Your task to perform on an android device: Search for razer naga on ebay.com, select the first entry, and add it to the cart. Image 0: 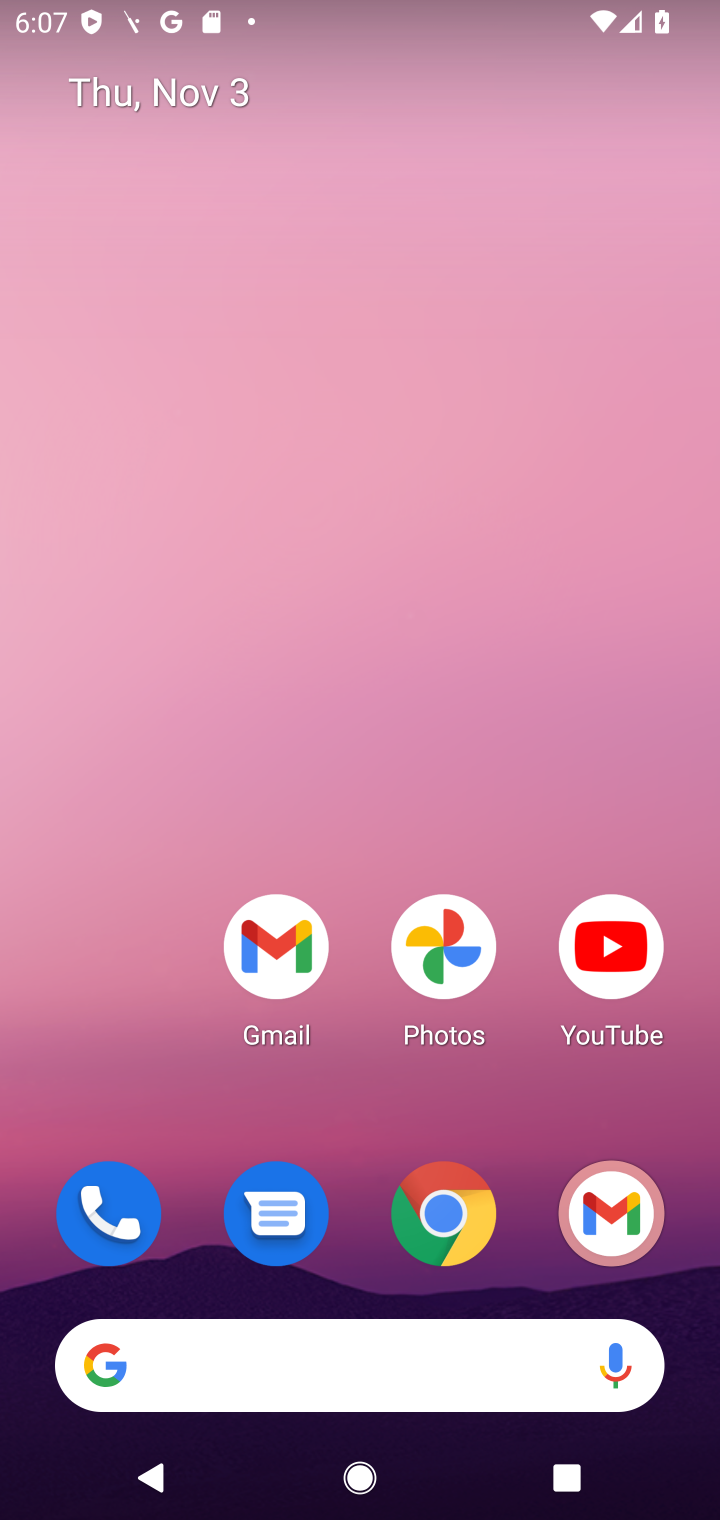
Step 0: click (431, 1228)
Your task to perform on an android device: Search for razer naga on ebay.com, select the first entry, and add it to the cart. Image 1: 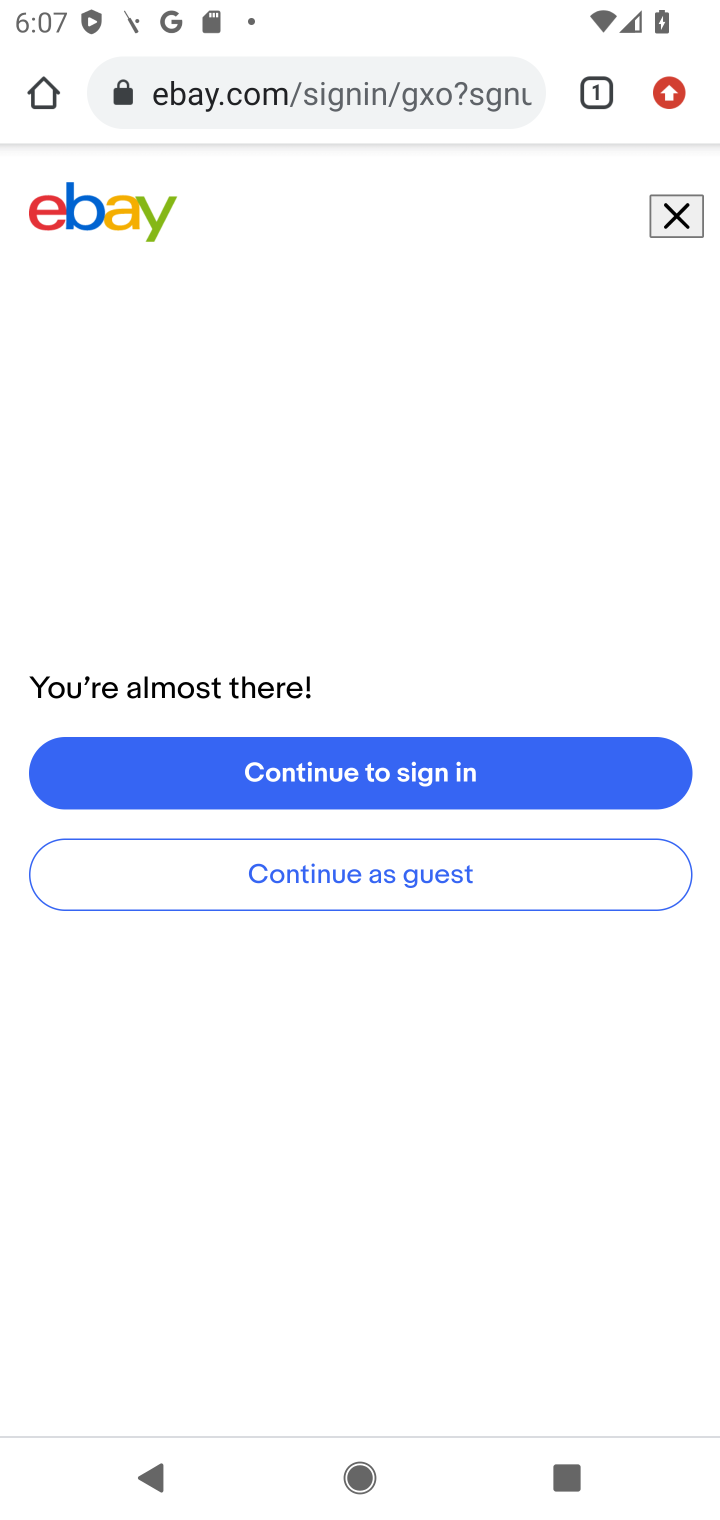
Step 1: click (670, 227)
Your task to perform on an android device: Search for razer naga on ebay.com, select the first entry, and add it to the cart. Image 2: 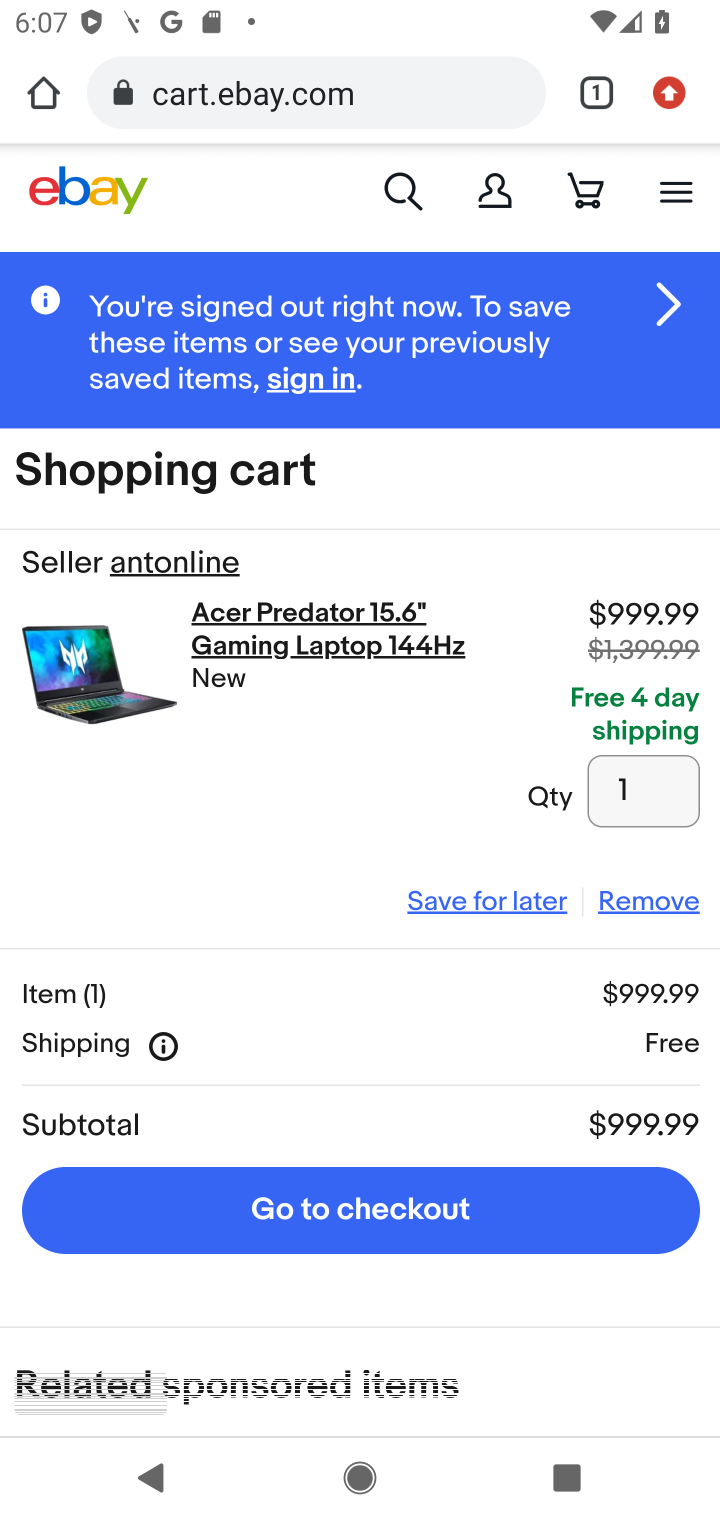
Step 2: click (390, 199)
Your task to perform on an android device: Search for razer naga on ebay.com, select the first entry, and add it to the cart. Image 3: 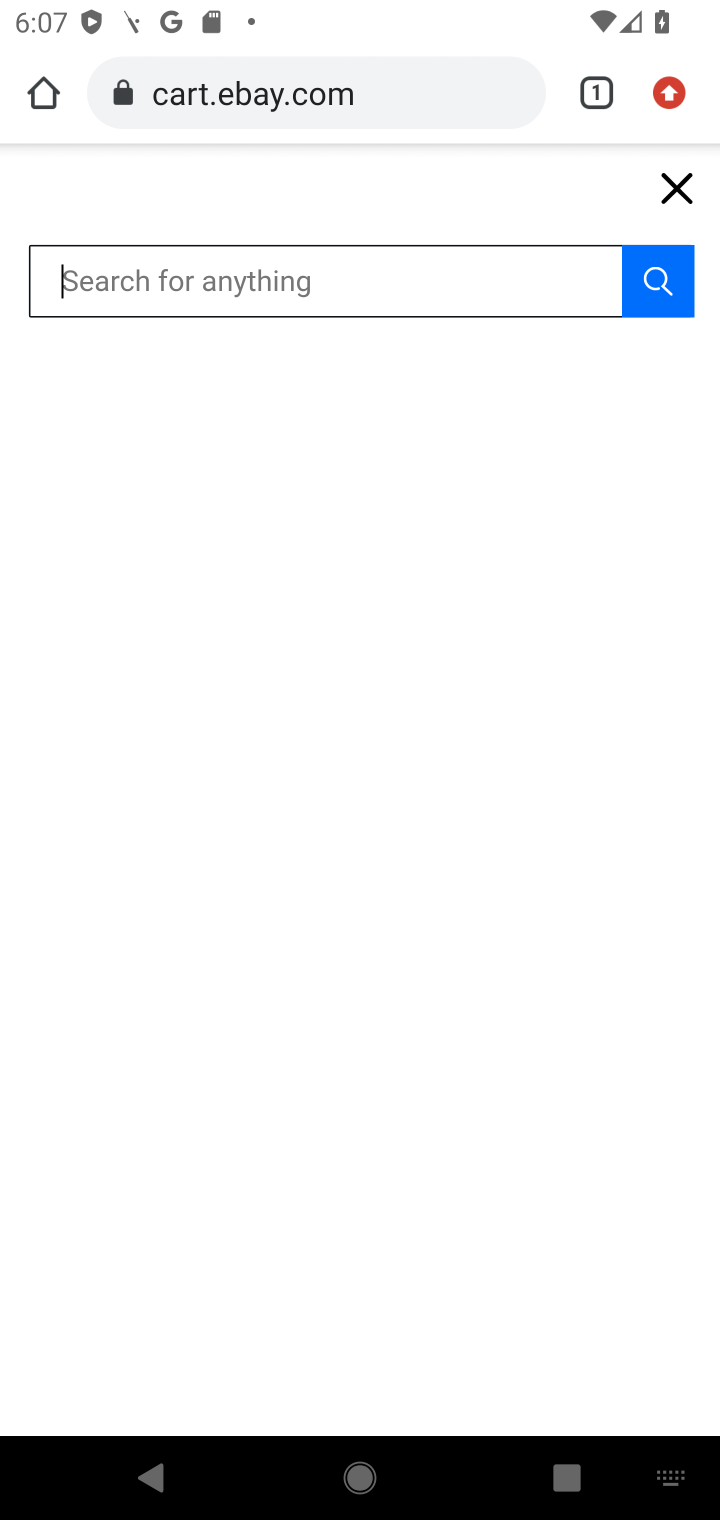
Step 3: type "razer naga"
Your task to perform on an android device: Search for razer naga on ebay.com, select the first entry, and add it to the cart. Image 4: 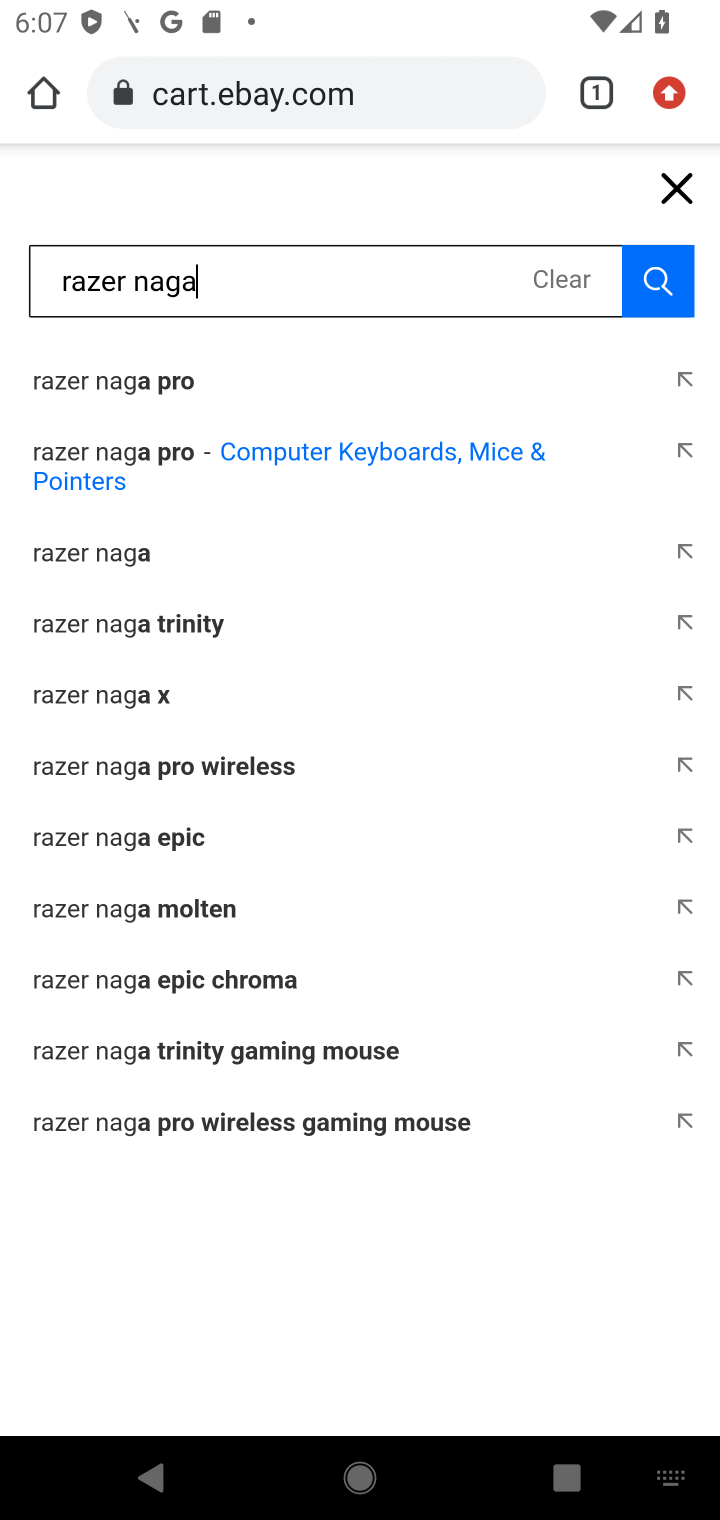
Step 4: click (134, 557)
Your task to perform on an android device: Search for razer naga on ebay.com, select the first entry, and add it to the cart. Image 5: 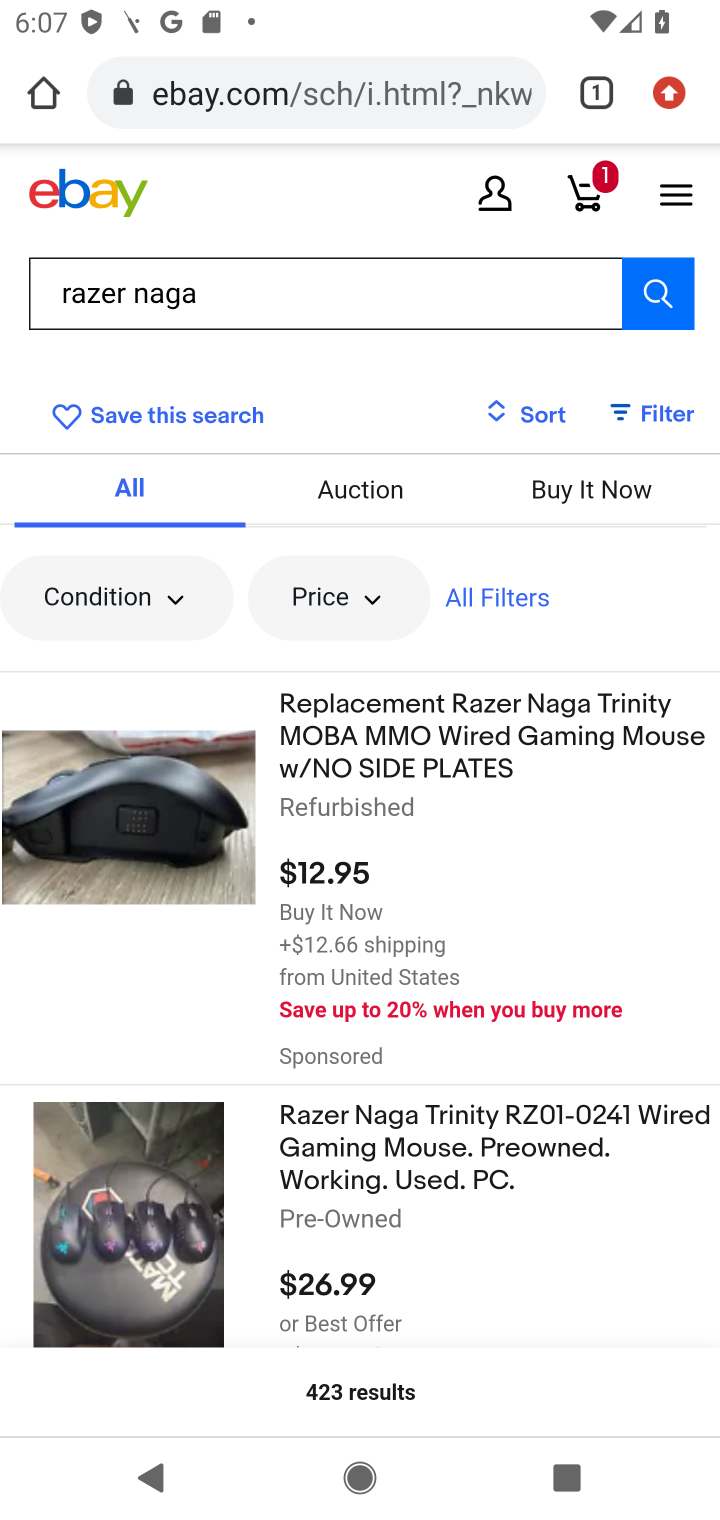
Step 5: click (275, 812)
Your task to perform on an android device: Search for razer naga on ebay.com, select the first entry, and add it to the cart. Image 6: 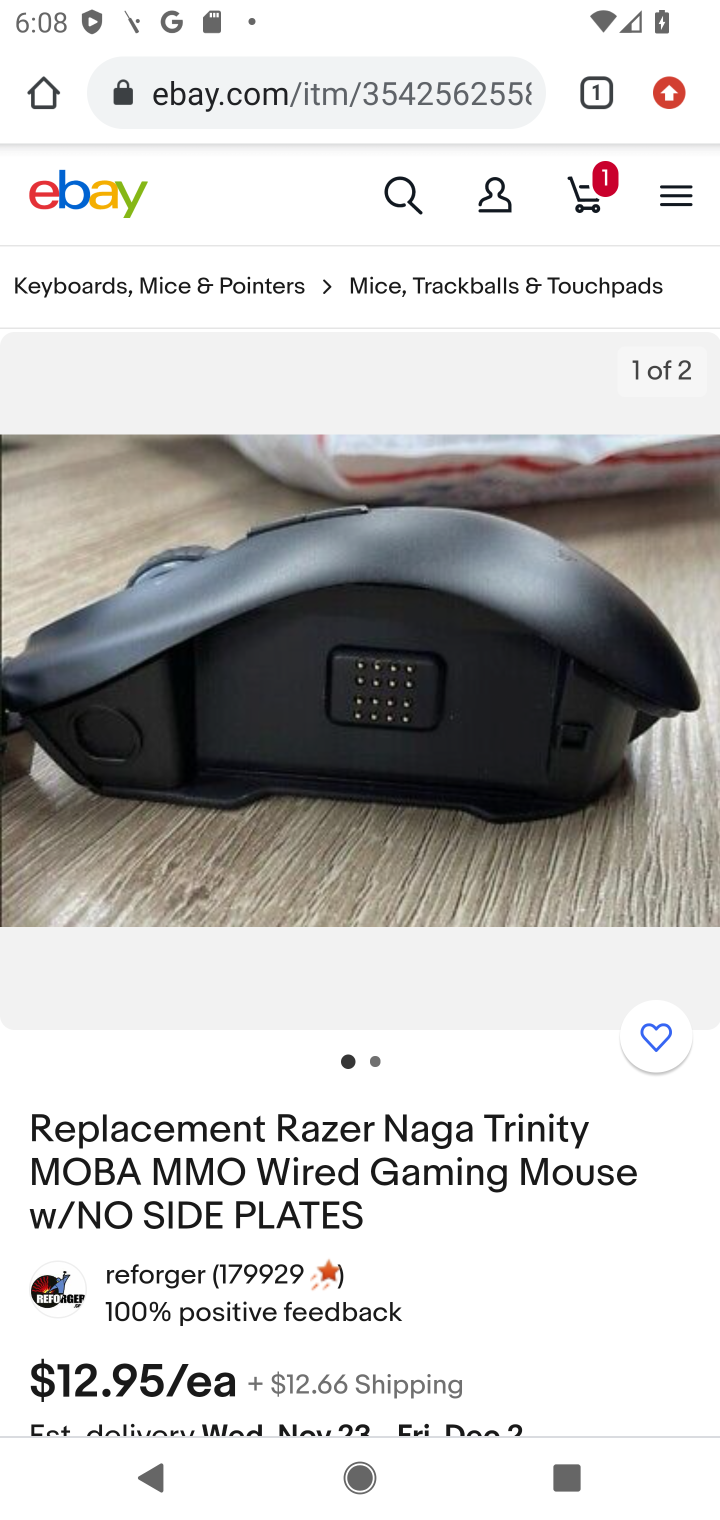
Step 6: drag from (409, 1311) to (440, 840)
Your task to perform on an android device: Search for razer naga on ebay.com, select the first entry, and add it to the cart. Image 7: 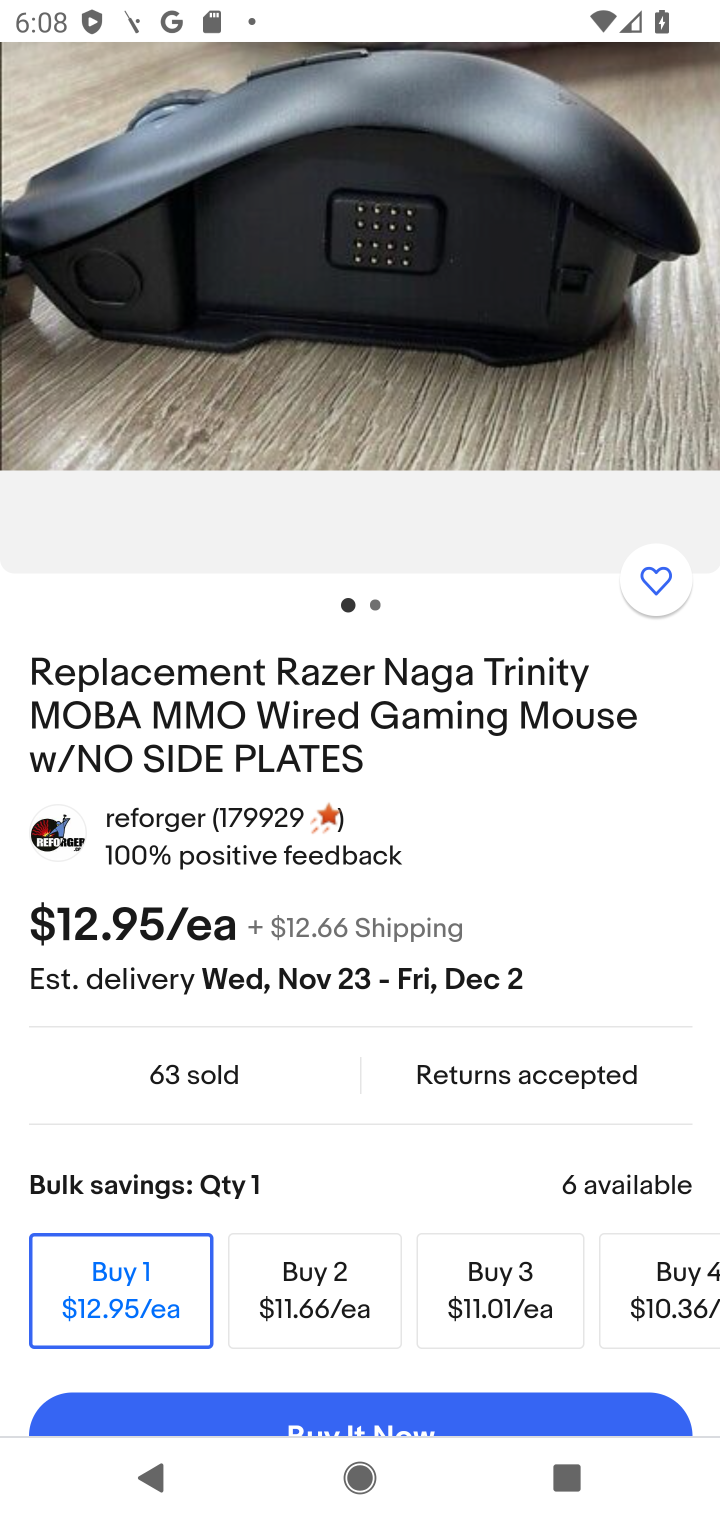
Step 7: drag from (339, 1253) to (383, 861)
Your task to perform on an android device: Search for razer naga on ebay.com, select the first entry, and add it to the cart. Image 8: 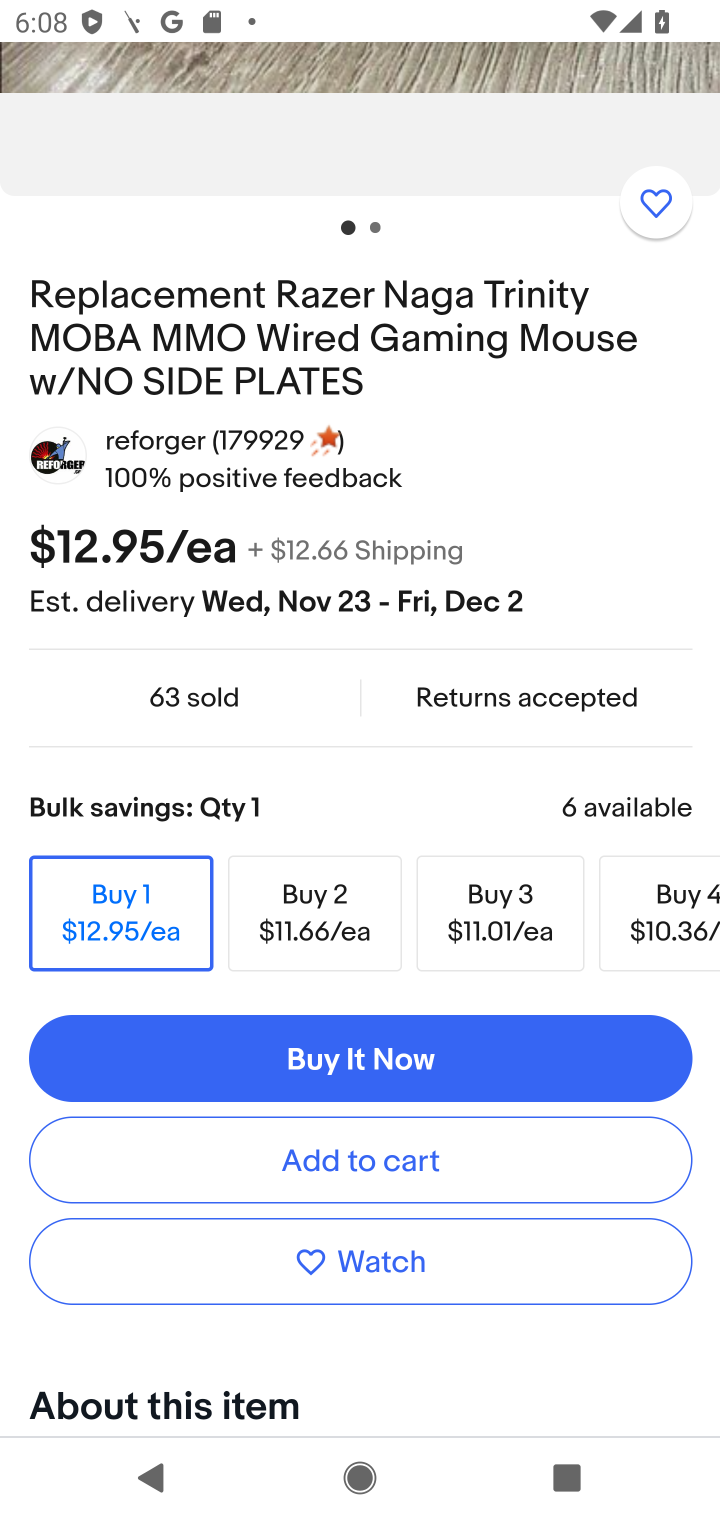
Step 8: drag from (429, 725) to (376, 1288)
Your task to perform on an android device: Search for razer naga on ebay.com, select the first entry, and add it to the cart. Image 9: 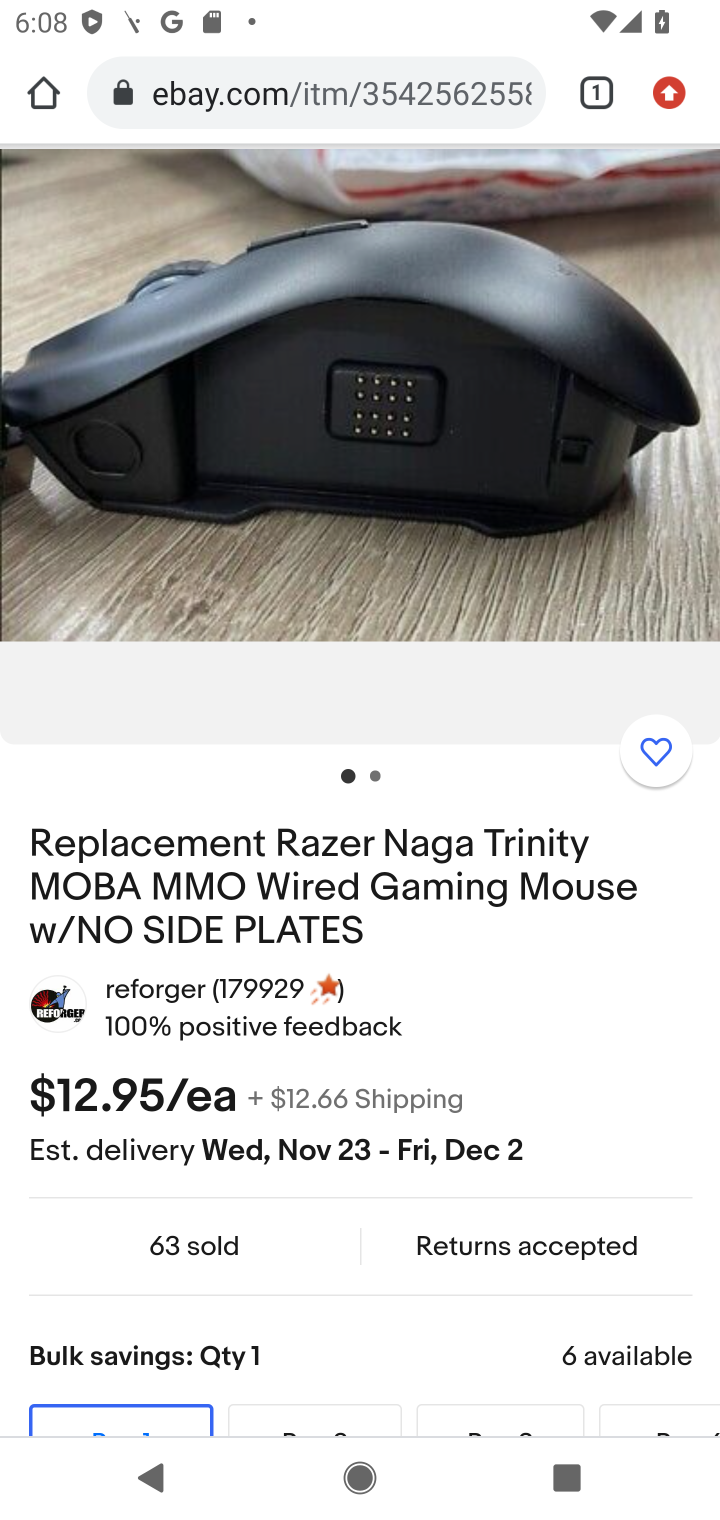
Step 9: drag from (378, 1249) to (490, 582)
Your task to perform on an android device: Search for razer naga on ebay.com, select the first entry, and add it to the cart. Image 10: 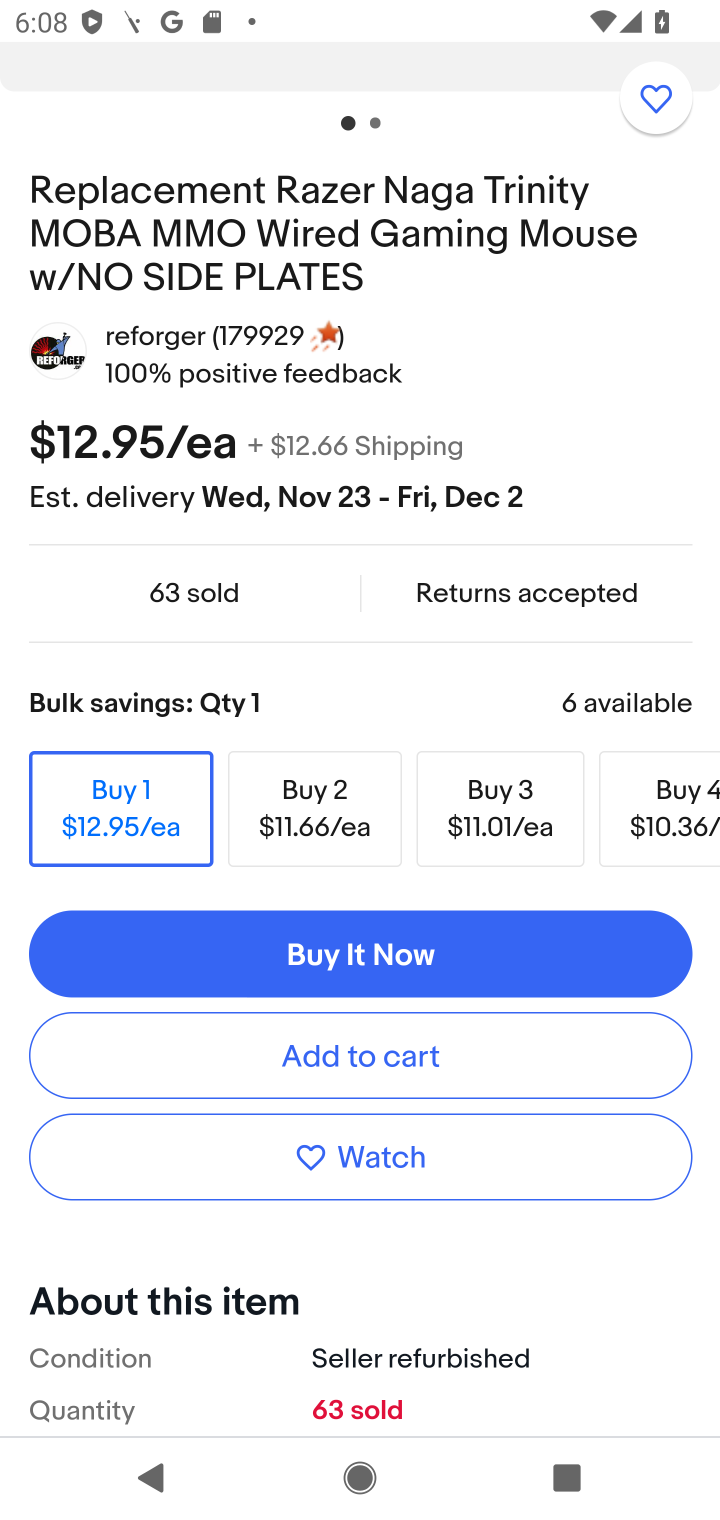
Step 10: click (356, 1064)
Your task to perform on an android device: Search for razer naga on ebay.com, select the first entry, and add it to the cart. Image 11: 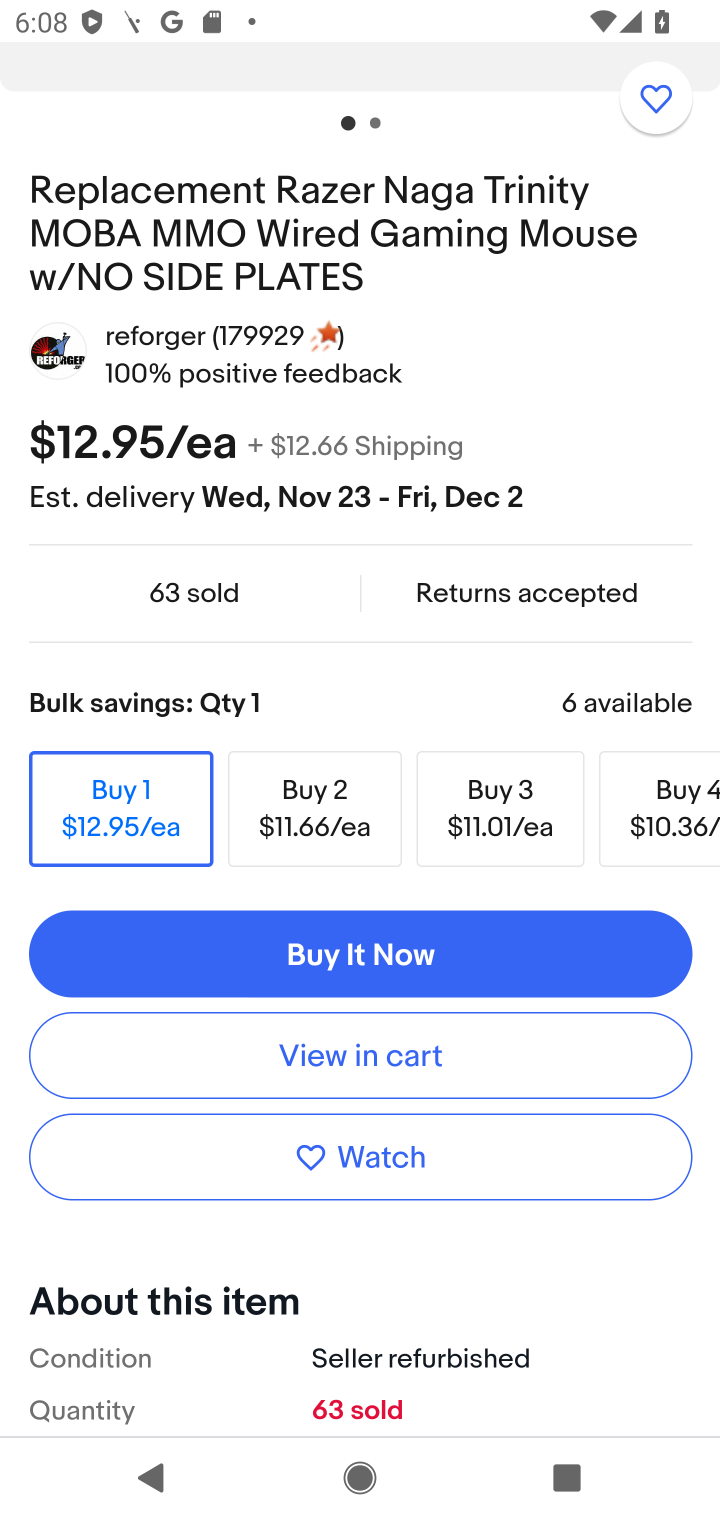
Step 11: task complete